Your task to perform on an android device: Go to sound settings Image 0: 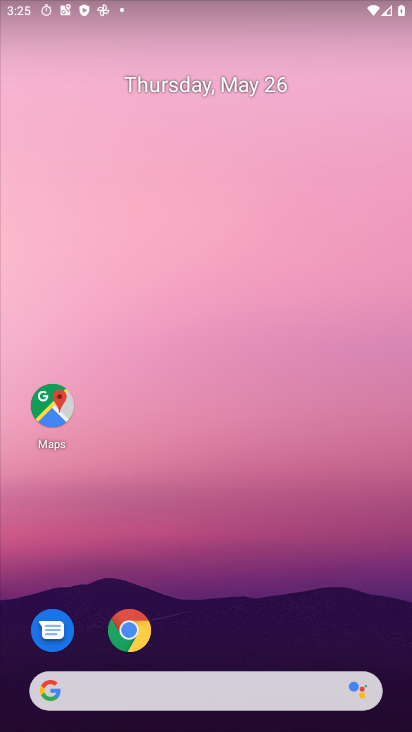
Step 0: drag from (165, 465) to (165, 265)
Your task to perform on an android device: Go to sound settings Image 1: 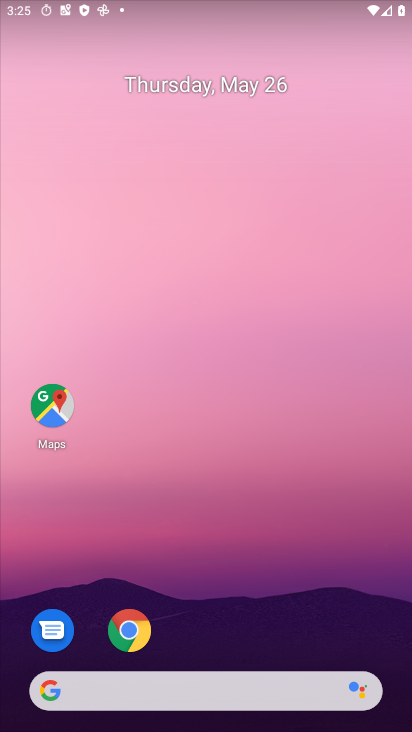
Step 1: drag from (182, 642) to (203, 216)
Your task to perform on an android device: Go to sound settings Image 2: 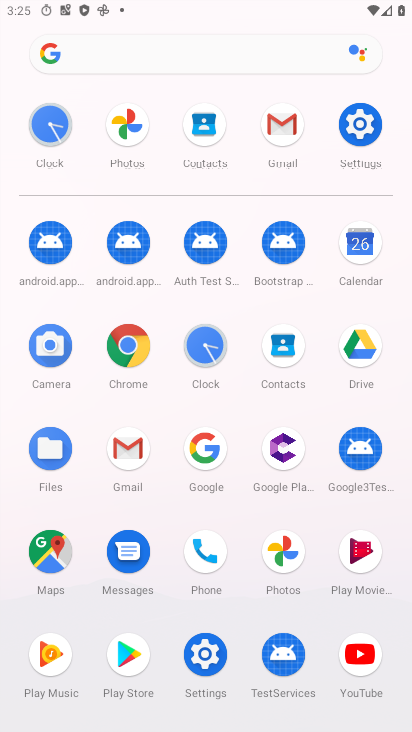
Step 2: click (370, 127)
Your task to perform on an android device: Go to sound settings Image 3: 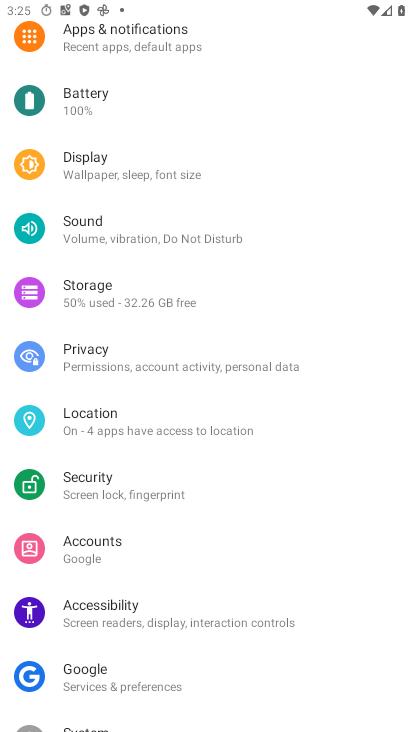
Step 3: click (143, 226)
Your task to perform on an android device: Go to sound settings Image 4: 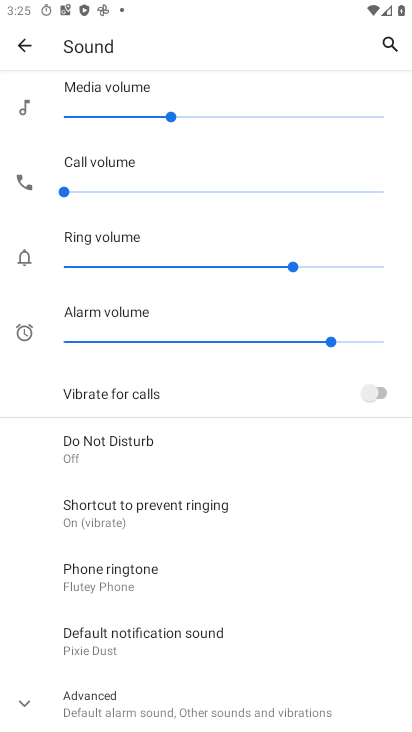
Step 4: task complete